Your task to perform on an android device: set the timer Image 0: 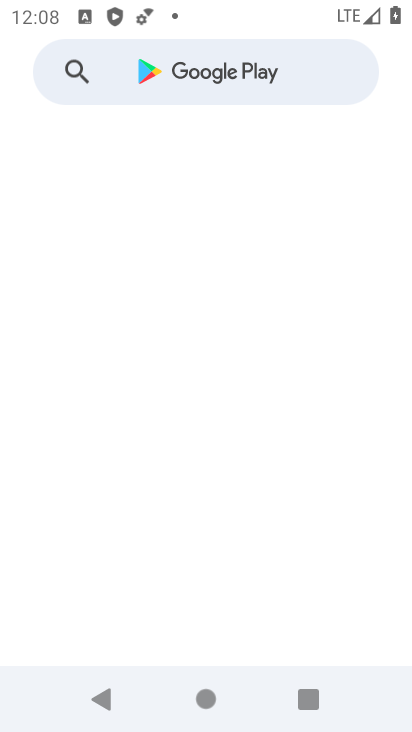
Step 0: press home button
Your task to perform on an android device: set the timer Image 1: 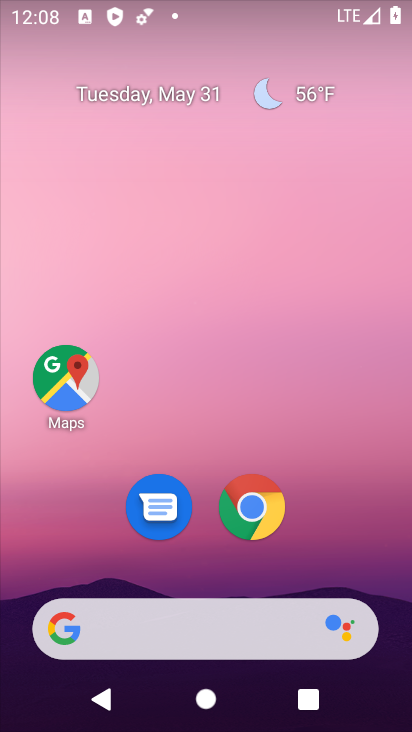
Step 1: drag from (385, 616) to (307, 95)
Your task to perform on an android device: set the timer Image 2: 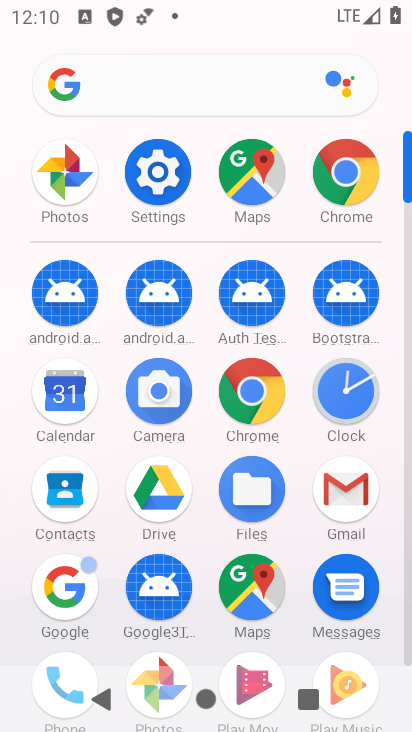
Step 2: click (341, 407)
Your task to perform on an android device: set the timer Image 3: 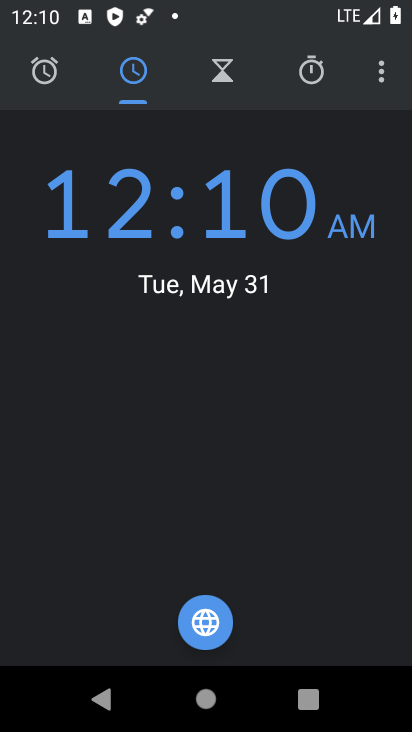
Step 3: click (384, 72)
Your task to perform on an android device: set the timer Image 4: 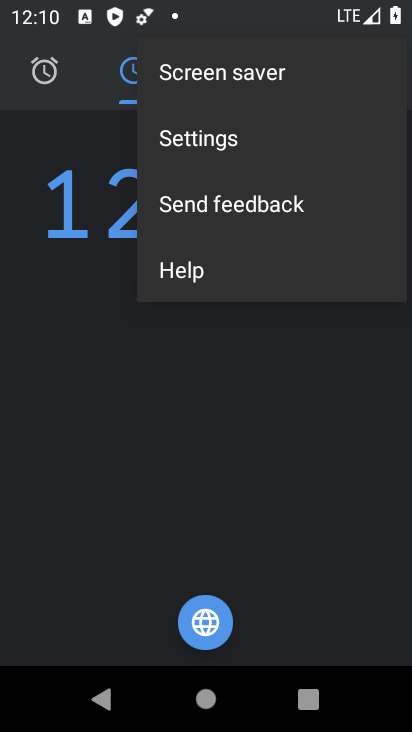
Step 4: click (240, 153)
Your task to perform on an android device: set the timer Image 5: 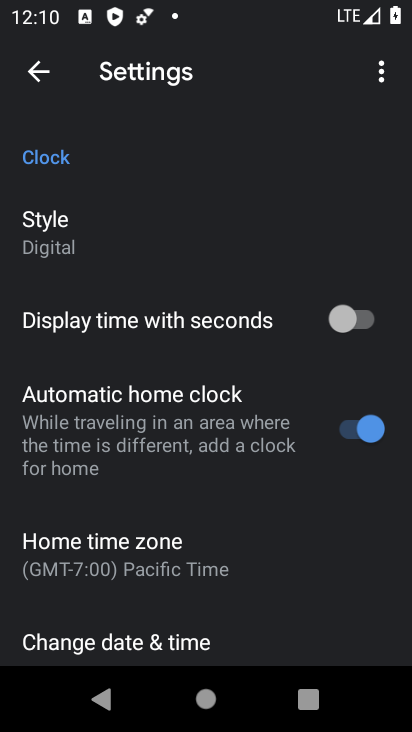
Step 5: click (205, 555)
Your task to perform on an android device: set the timer Image 6: 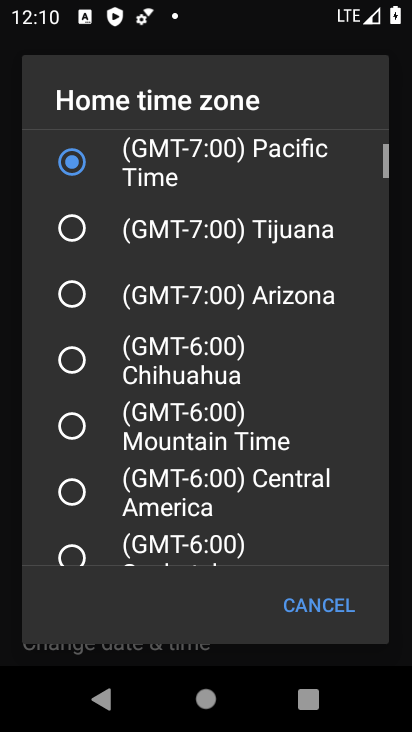
Step 6: click (168, 499)
Your task to perform on an android device: set the timer Image 7: 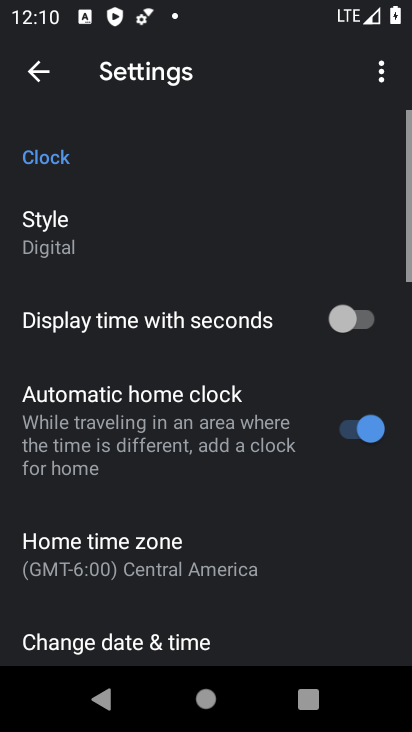
Step 7: task complete